Your task to perform on an android device: Go to privacy settings Image 0: 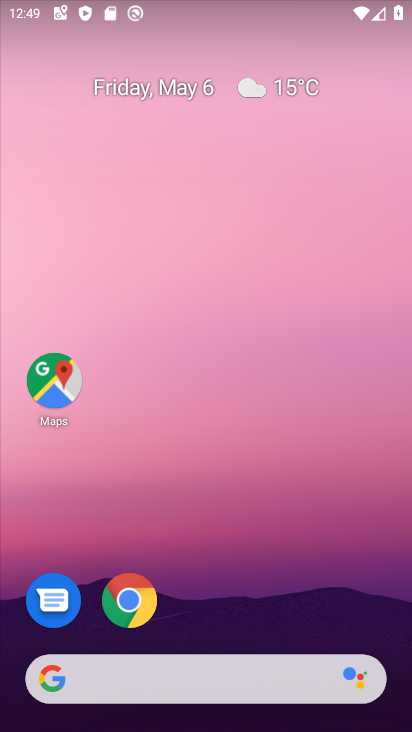
Step 0: drag from (347, 615) to (301, 67)
Your task to perform on an android device: Go to privacy settings Image 1: 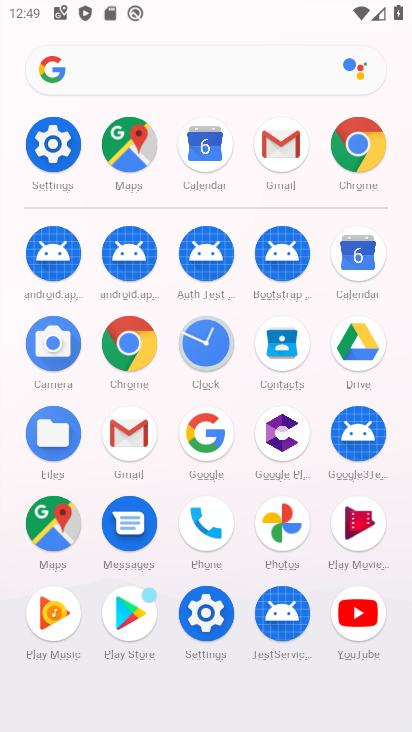
Step 1: click (196, 604)
Your task to perform on an android device: Go to privacy settings Image 2: 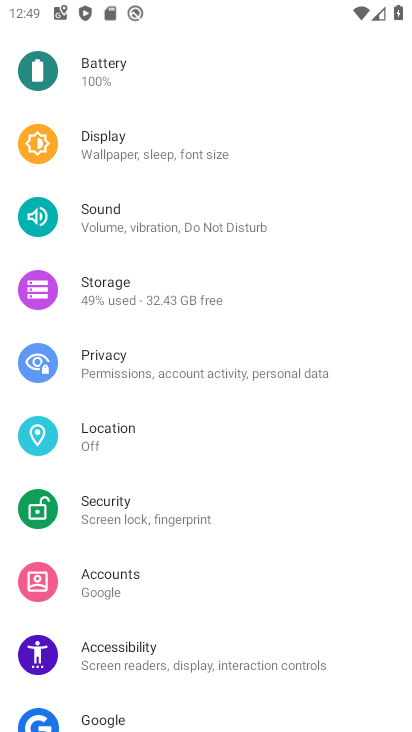
Step 2: click (105, 370)
Your task to perform on an android device: Go to privacy settings Image 3: 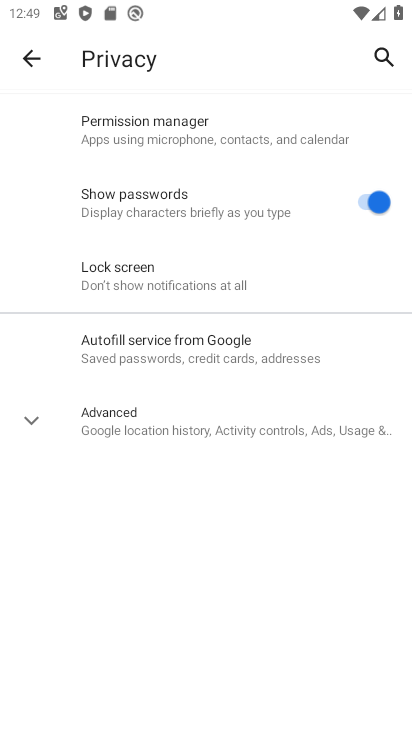
Step 3: task complete